Your task to perform on an android device: Open notification settings Image 0: 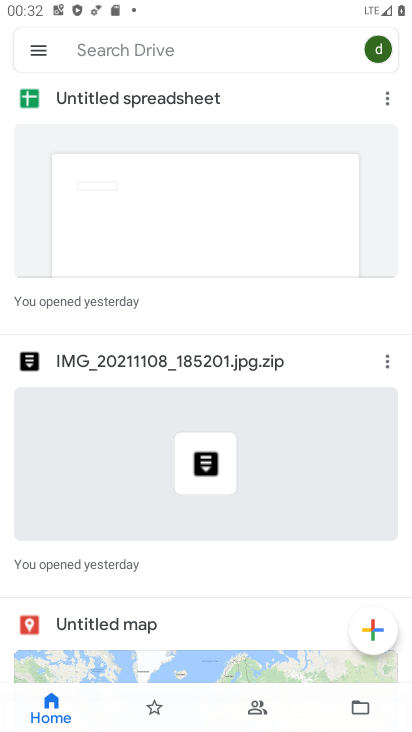
Step 0: press home button
Your task to perform on an android device: Open notification settings Image 1: 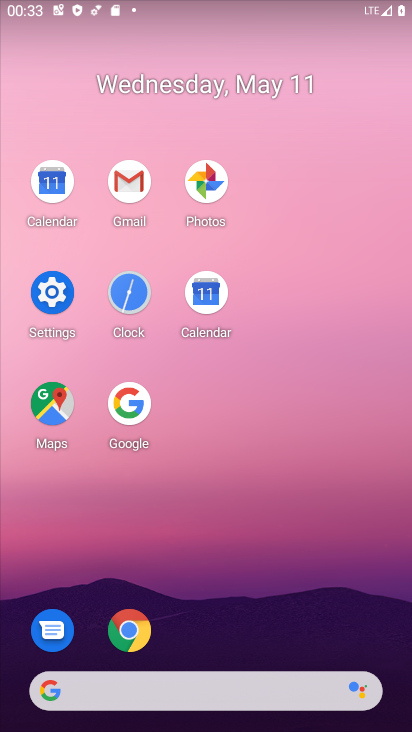
Step 1: click (51, 294)
Your task to perform on an android device: Open notification settings Image 2: 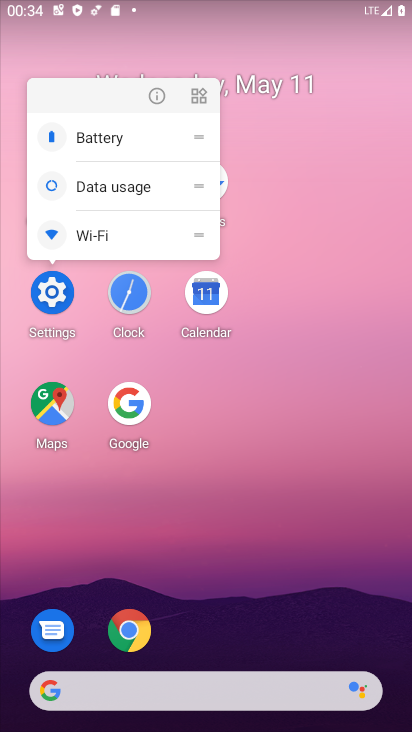
Step 2: click (52, 295)
Your task to perform on an android device: Open notification settings Image 3: 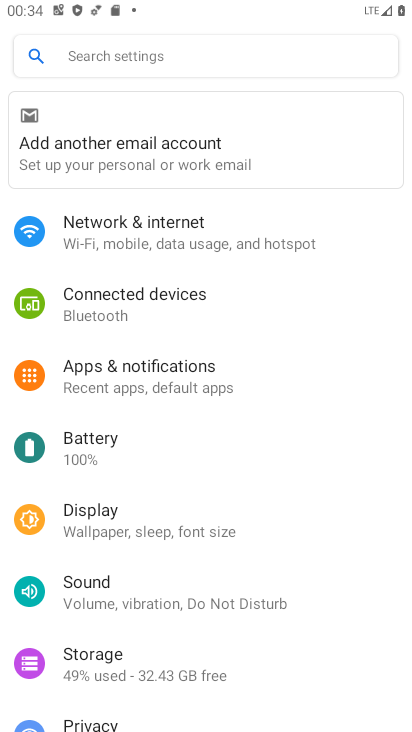
Step 3: click (197, 366)
Your task to perform on an android device: Open notification settings Image 4: 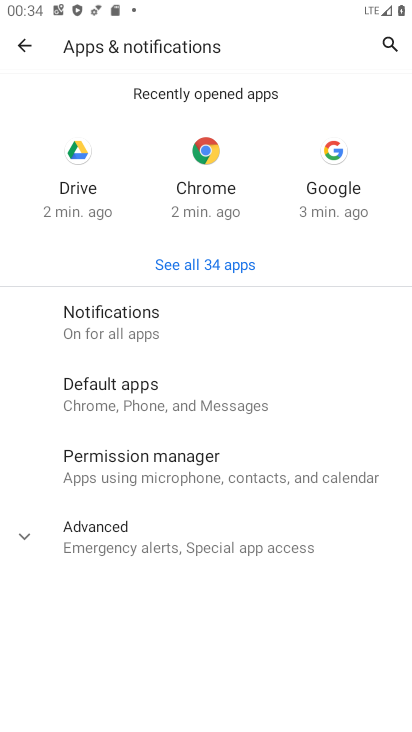
Step 4: task complete